Your task to perform on an android device: Show me productivity apps on the Play Store Image 0: 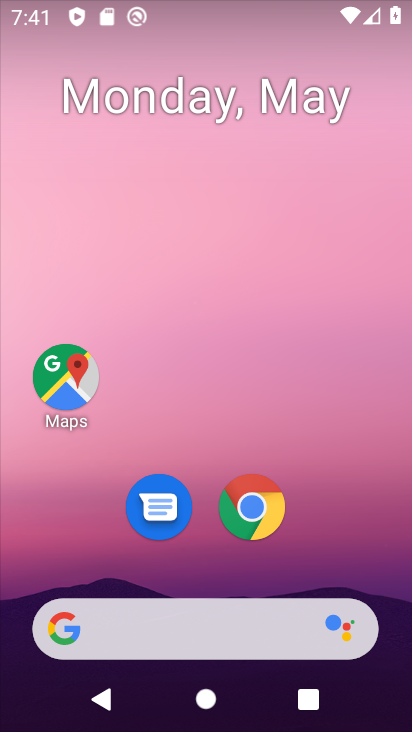
Step 0: drag from (350, 576) to (314, 12)
Your task to perform on an android device: Show me productivity apps on the Play Store Image 1: 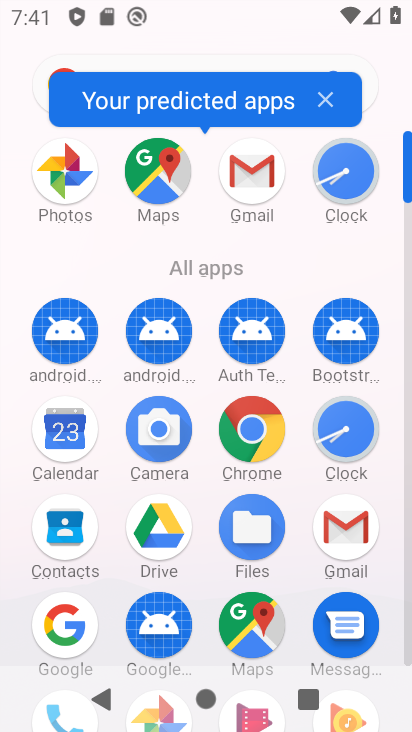
Step 1: click (408, 534)
Your task to perform on an android device: Show me productivity apps on the Play Store Image 2: 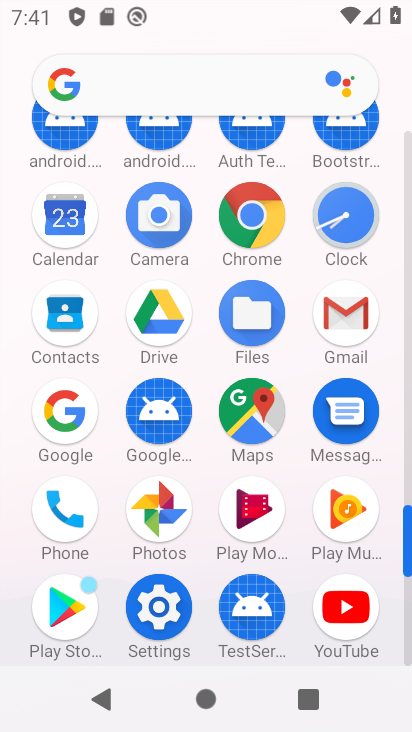
Step 2: click (67, 614)
Your task to perform on an android device: Show me productivity apps on the Play Store Image 3: 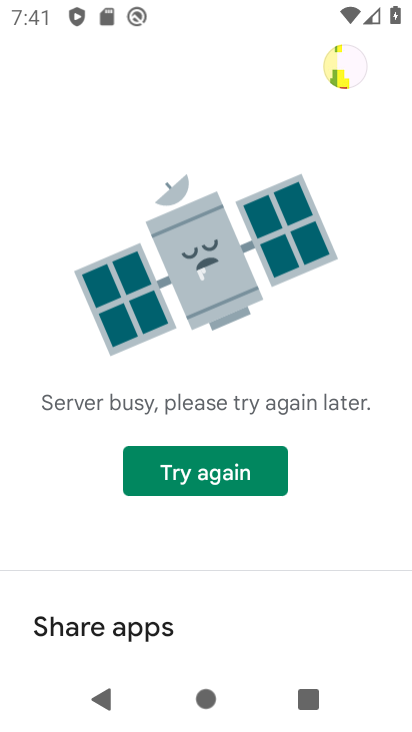
Step 3: task complete